Your task to perform on an android device: turn off javascript in the chrome app Image 0: 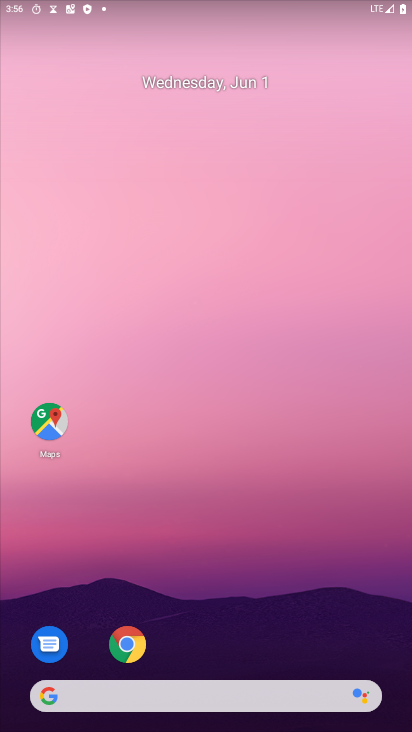
Step 0: click (127, 653)
Your task to perform on an android device: turn off javascript in the chrome app Image 1: 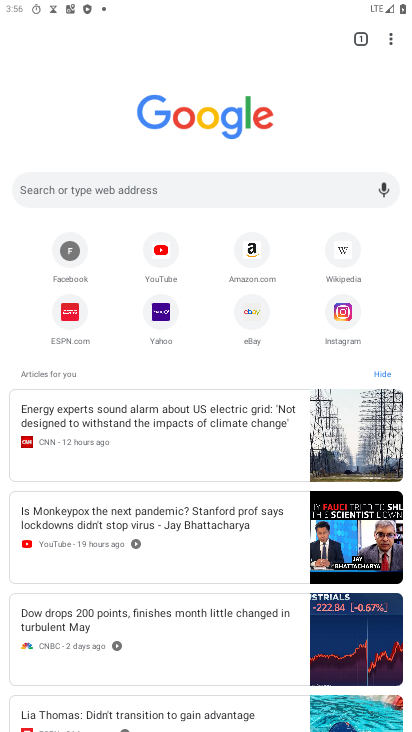
Step 1: drag from (389, 34) to (234, 321)
Your task to perform on an android device: turn off javascript in the chrome app Image 2: 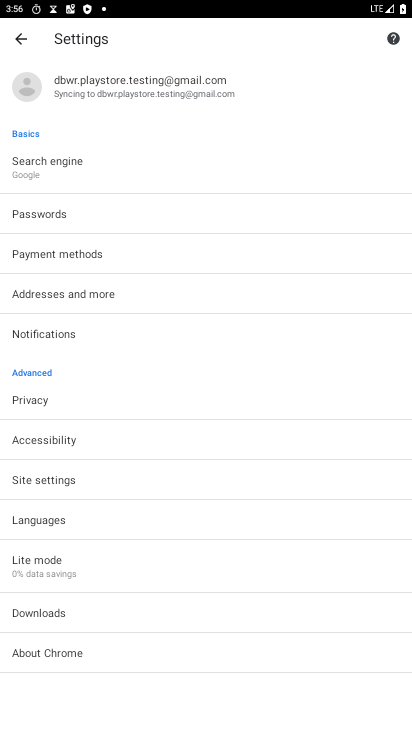
Step 2: click (48, 469)
Your task to perform on an android device: turn off javascript in the chrome app Image 3: 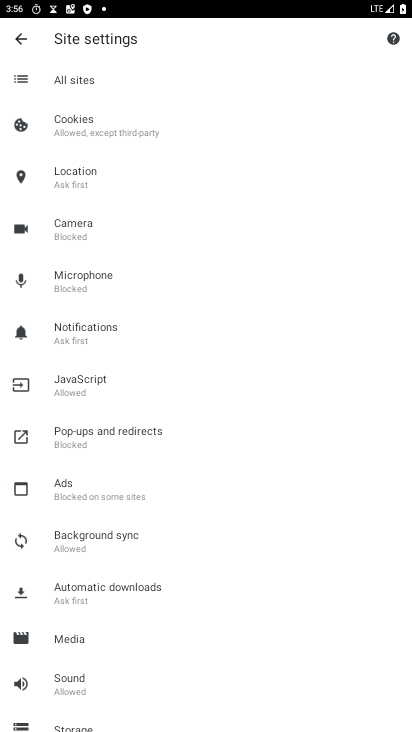
Step 3: click (94, 374)
Your task to perform on an android device: turn off javascript in the chrome app Image 4: 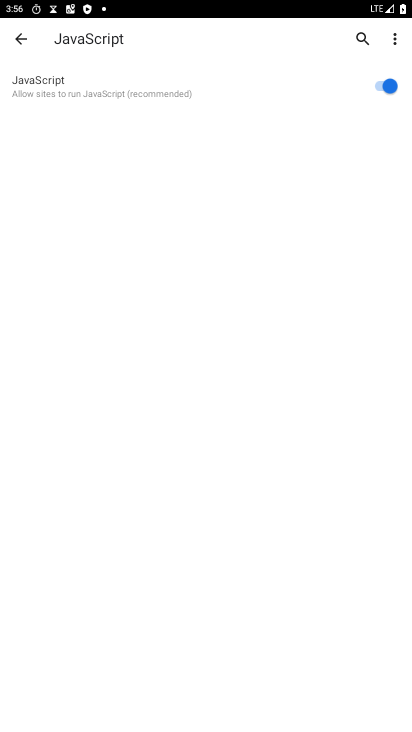
Step 4: click (376, 80)
Your task to perform on an android device: turn off javascript in the chrome app Image 5: 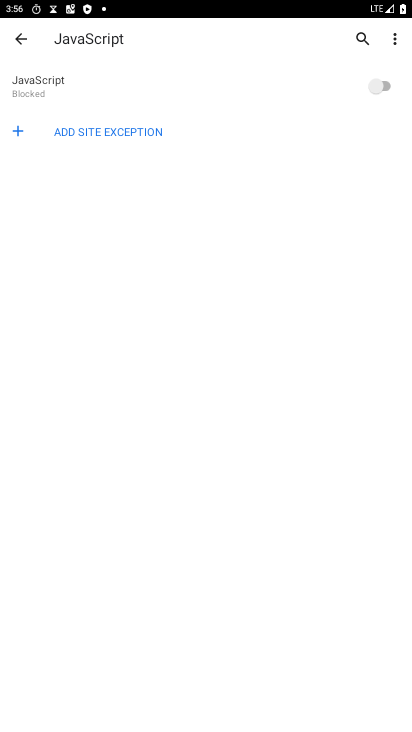
Step 5: task complete